Your task to perform on an android device: Open Maps and search for coffee Image 0: 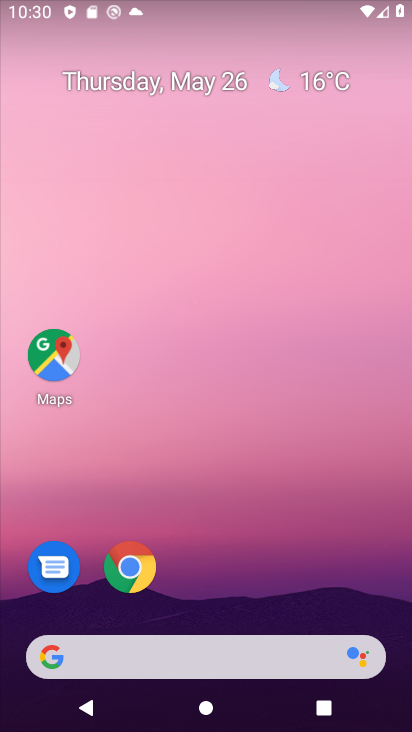
Step 0: drag from (202, 614) to (279, 55)
Your task to perform on an android device: Open Maps and search for coffee Image 1: 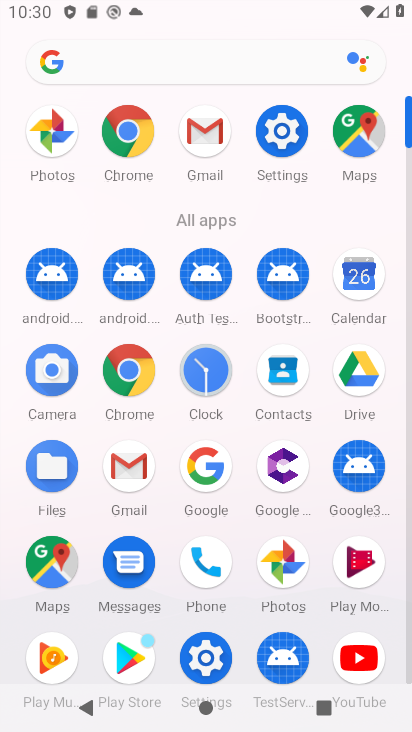
Step 1: click (52, 553)
Your task to perform on an android device: Open Maps and search for coffee Image 2: 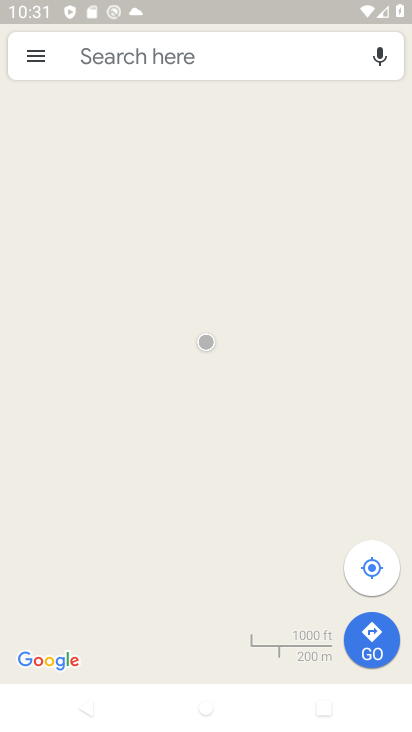
Step 2: click (172, 45)
Your task to perform on an android device: Open Maps and search for coffee Image 3: 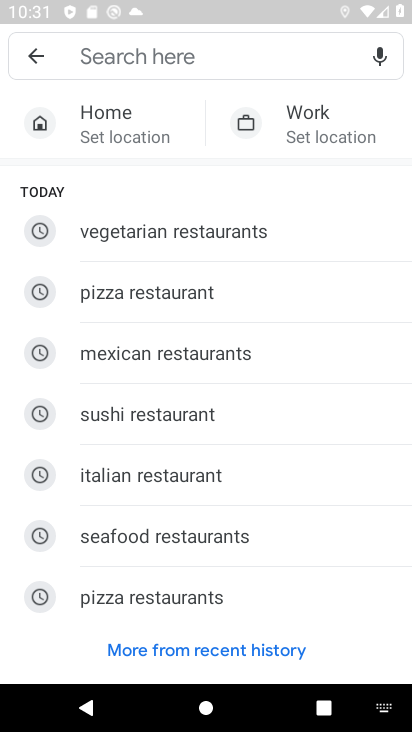
Step 3: type "coffee"
Your task to perform on an android device: Open Maps and search for coffee Image 4: 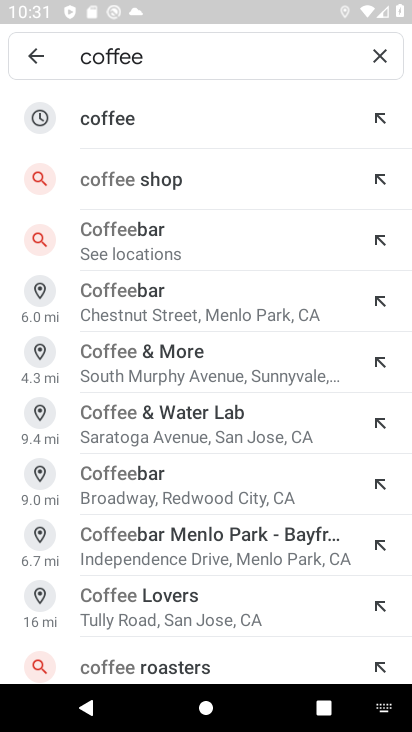
Step 4: click (163, 112)
Your task to perform on an android device: Open Maps and search for coffee Image 5: 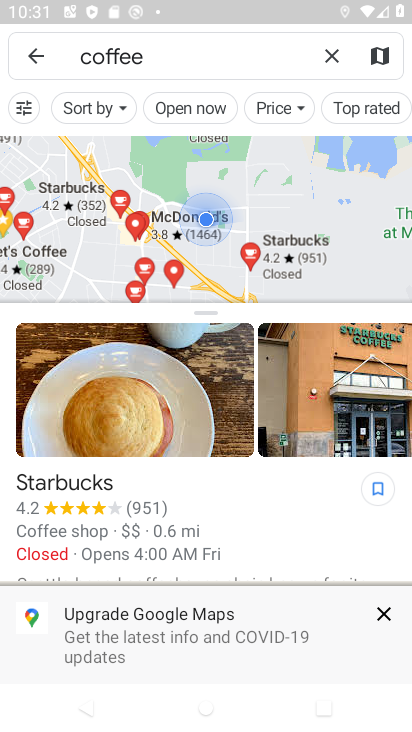
Step 5: click (382, 611)
Your task to perform on an android device: Open Maps and search for coffee Image 6: 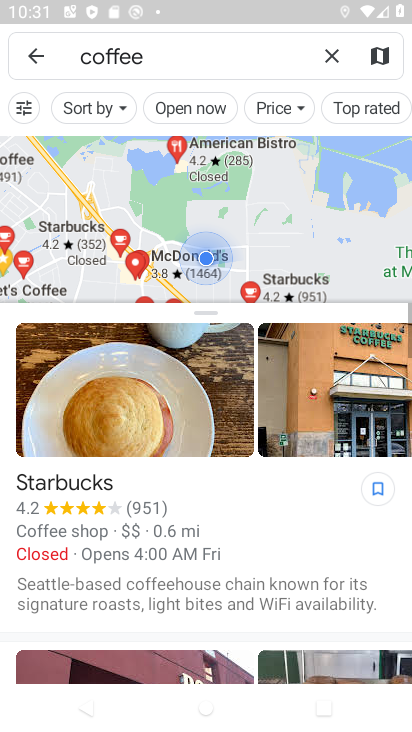
Step 6: task complete